Your task to perform on an android device: turn off translation in the chrome app Image 0: 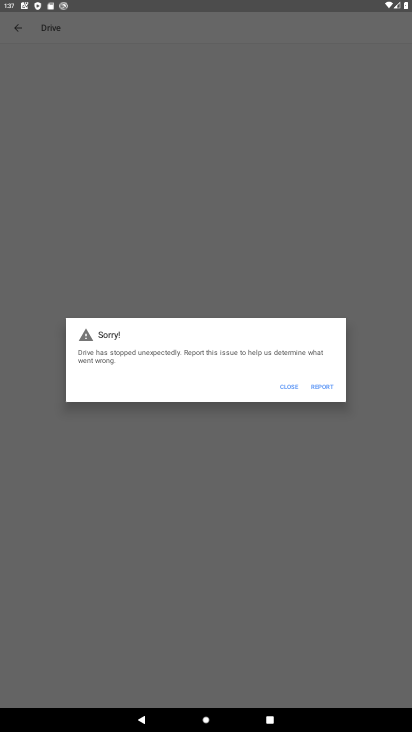
Step 0: press home button
Your task to perform on an android device: turn off translation in the chrome app Image 1: 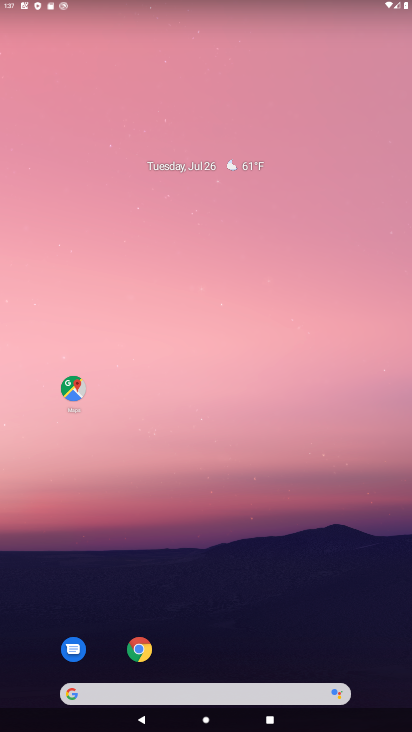
Step 1: click (139, 647)
Your task to perform on an android device: turn off translation in the chrome app Image 2: 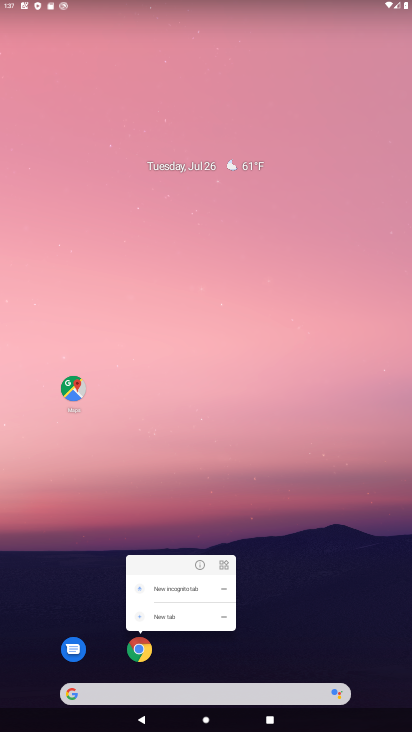
Step 2: click (139, 647)
Your task to perform on an android device: turn off translation in the chrome app Image 3: 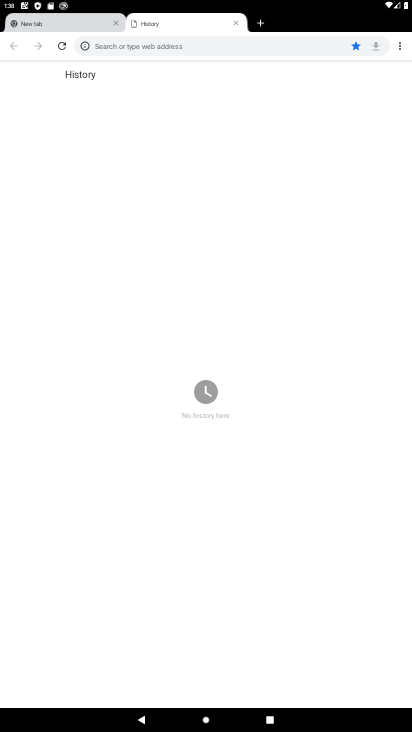
Step 3: click (260, 17)
Your task to perform on an android device: turn off translation in the chrome app Image 4: 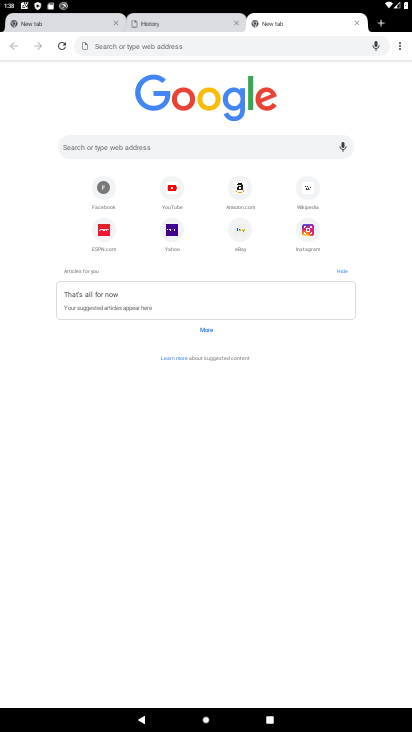
Step 4: click (404, 43)
Your task to perform on an android device: turn off translation in the chrome app Image 5: 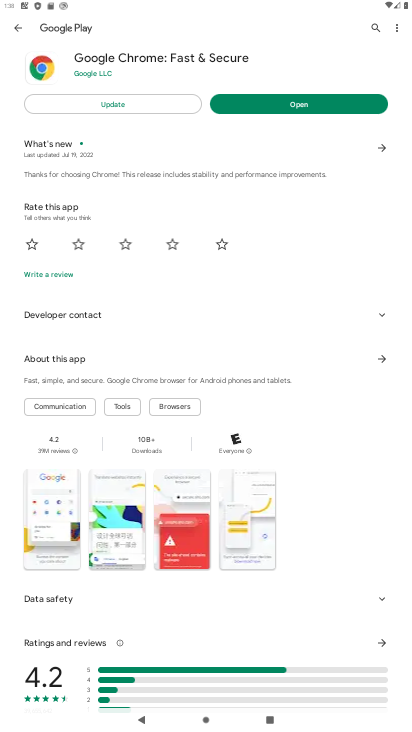
Step 5: press back button
Your task to perform on an android device: turn off translation in the chrome app Image 6: 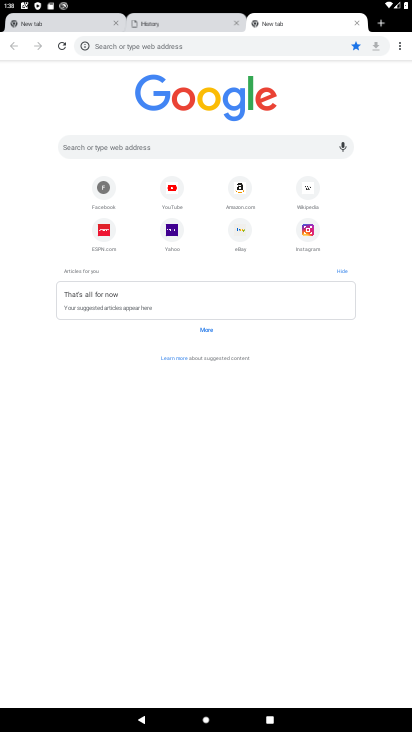
Step 6: press back button
Your task to perform on an android device: turn off translation in the chrome app Image 7: 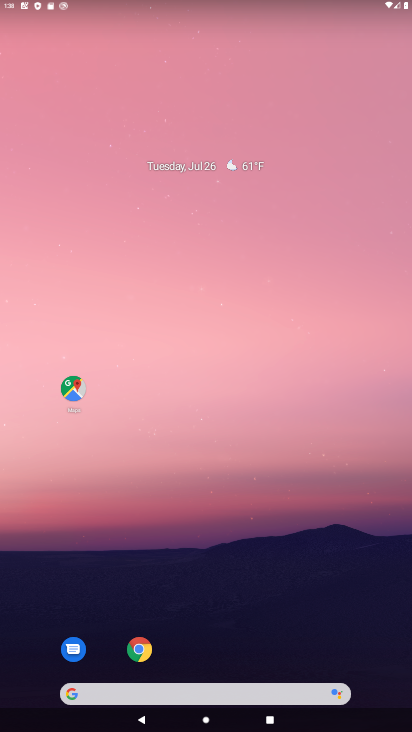
Step 7: click (139, 648)
Your task to perform on an android device: turn off translation in the chrome app Image 8: 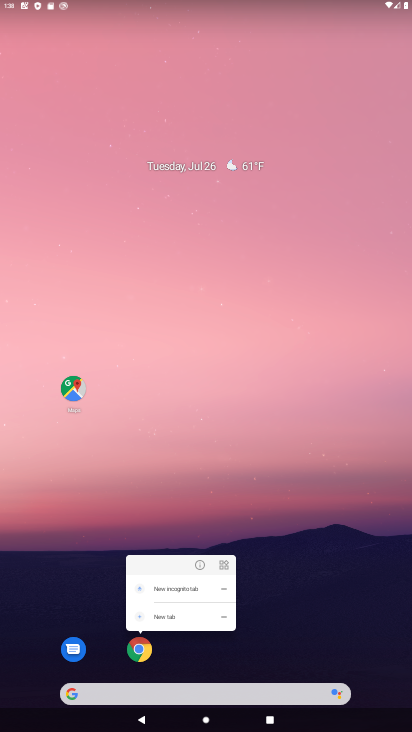
Step 8: click (280, 650)
Your task to perform on an android device: turn off translation in the chrome app Image 9: 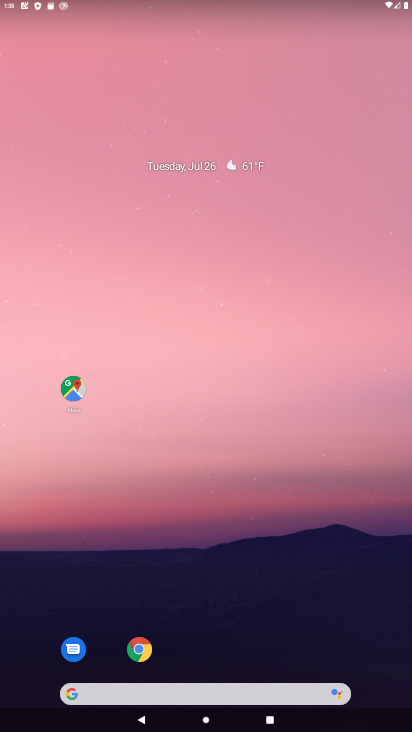
Step 9: drag from (280, 650) to (364, 41)
Your task to perform on an android device: turn off translation in the chrome app Image 10: 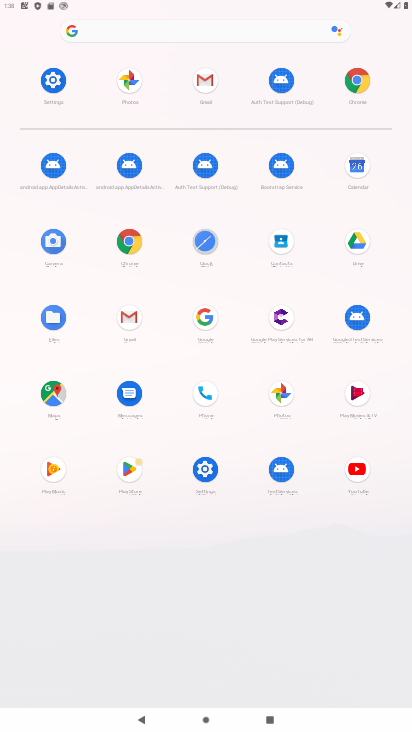
Step 10: click (355, 77)
Your task to perform on an android device: turn off translation in the chrome app Image 11: 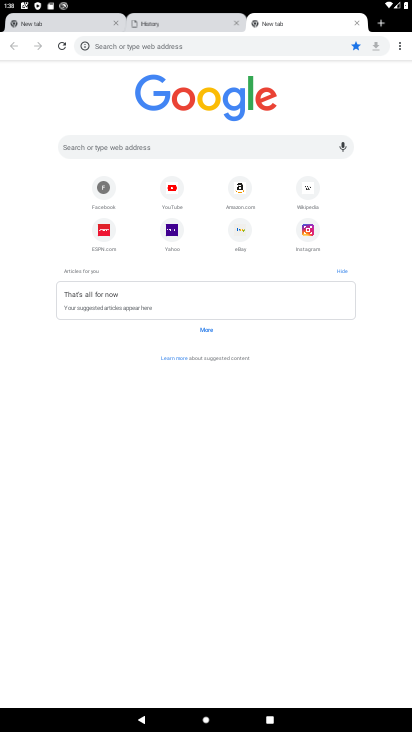
Step 11: click (401, 46)
Your task to perform on an android device: turn off translation in the chrome app Image 12: 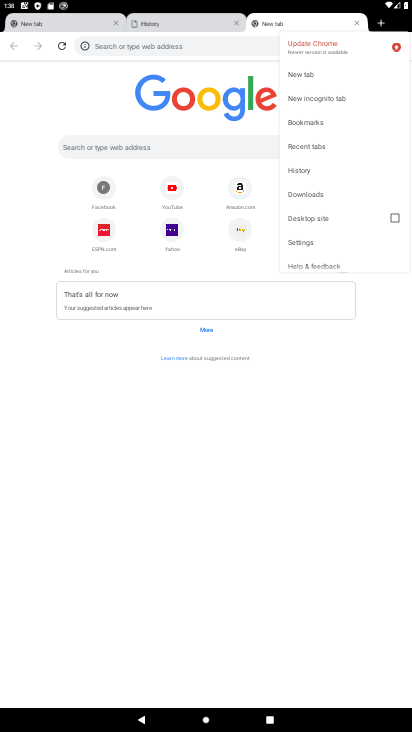
Step 12: click (314, 239)
Your task to perform on an android device: turn off translation in the chrome app Image 13: 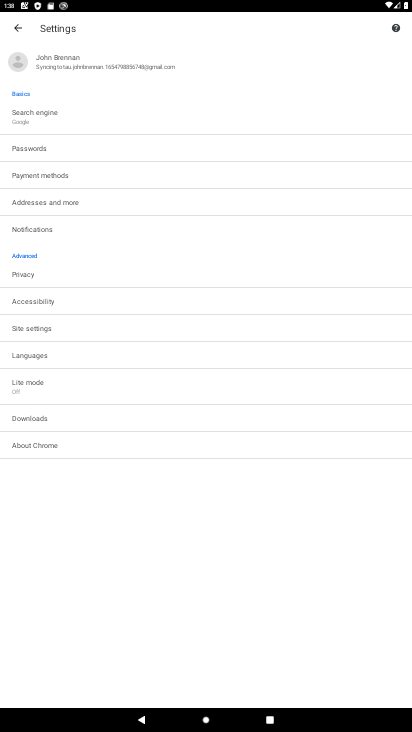
Step 13: click (51, 358)
Your task to perform on an android device: turn off translation in the chrome app Image 14: 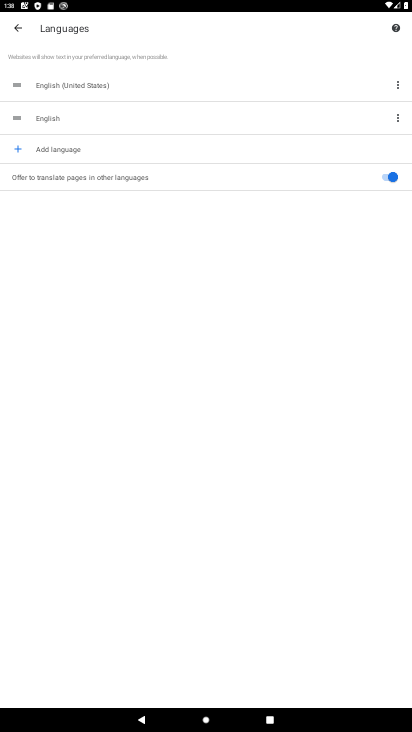
Step 14: click (388, 179)
Your task to perform on an android device: turn off translation in the chrome app Image 15: 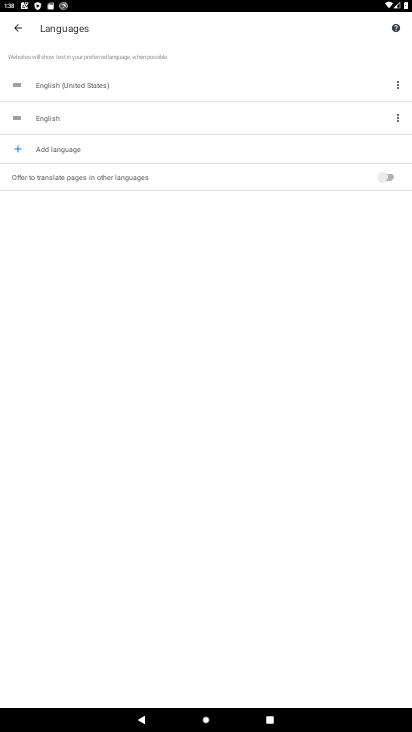
Step 15: task complete